Your task to perform on an android device: turn on location history Image 0: 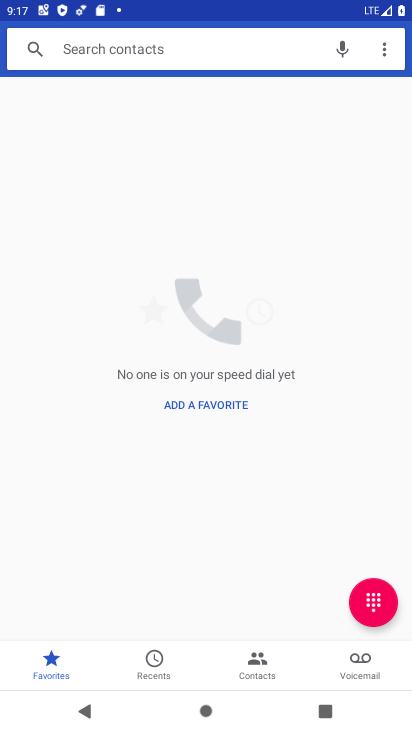
Step 0: press home button
Your task to perform on an android device: turn on location history Image 1: 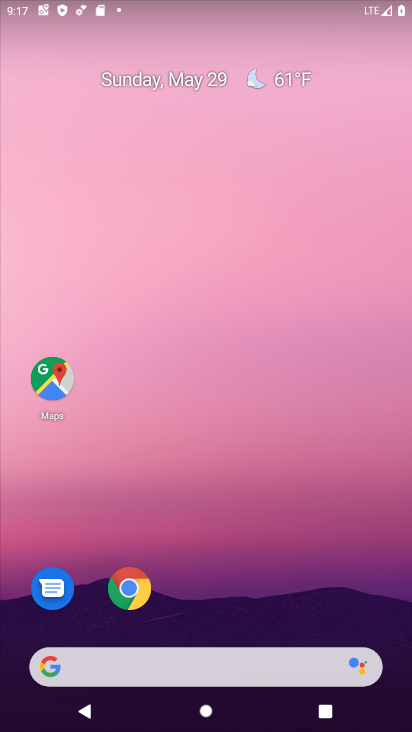
Step 1: drag from (310, 486) to (271, 85)
Your task to perform on an android device: turn on location history Image 2: 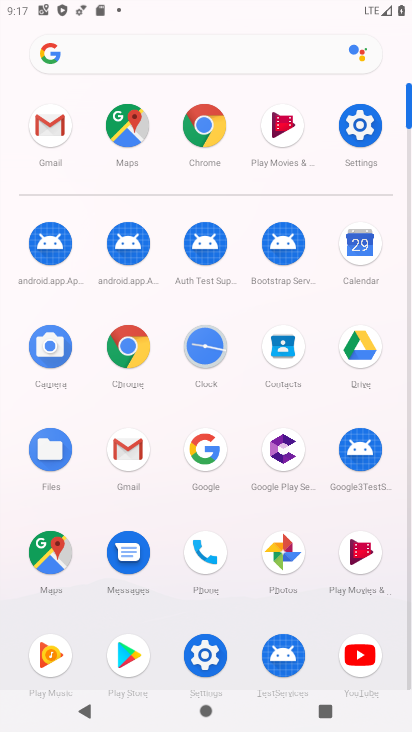
Step 2: click (364, 121)
Your task to perform on an android device: turn on location history Image 3: 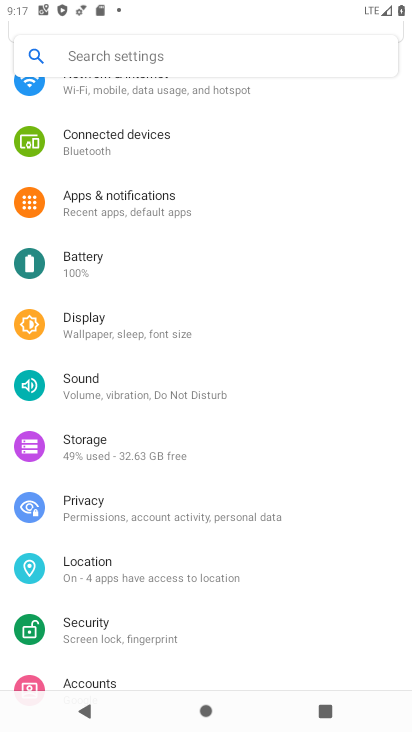
Step 3: click (78, 555)
Your task to perform on an android device: turn on location history Image 4: 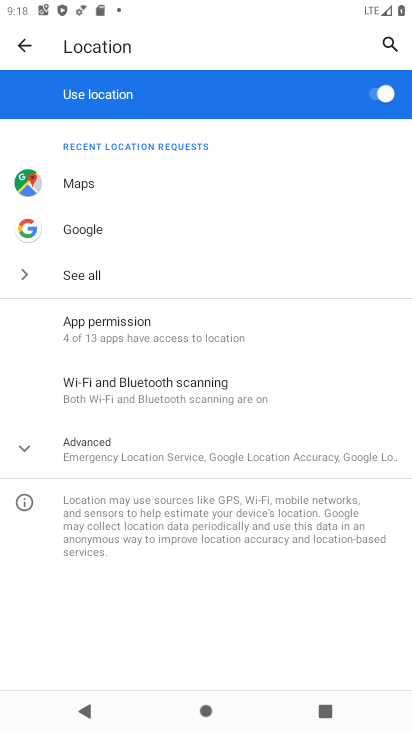
Step 4: click (103, 437)
Your task to perform on an android device: turn on location history Image 5: 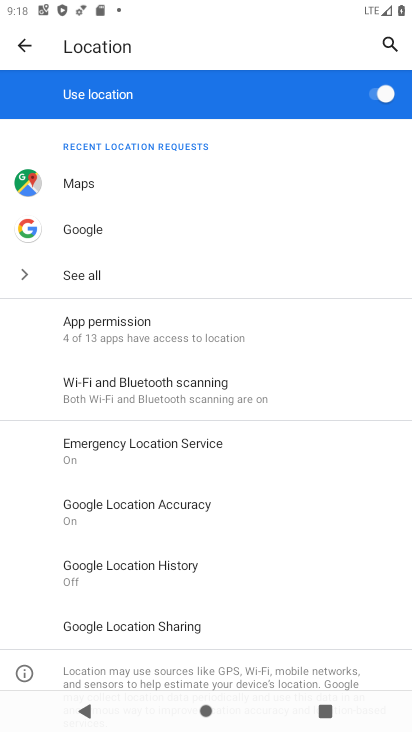
Step 5: click (180, 569)
Your task to perform on an android device: turn on location history Image 6: 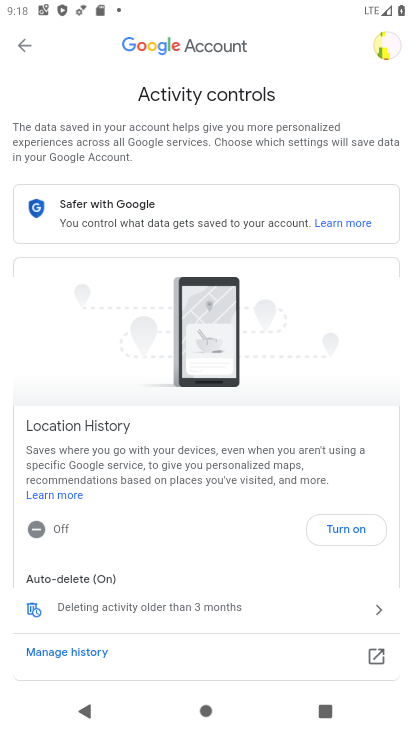
Step 6: click (337, 526)
Your task to perform on an android device: turn on location history Image 7: 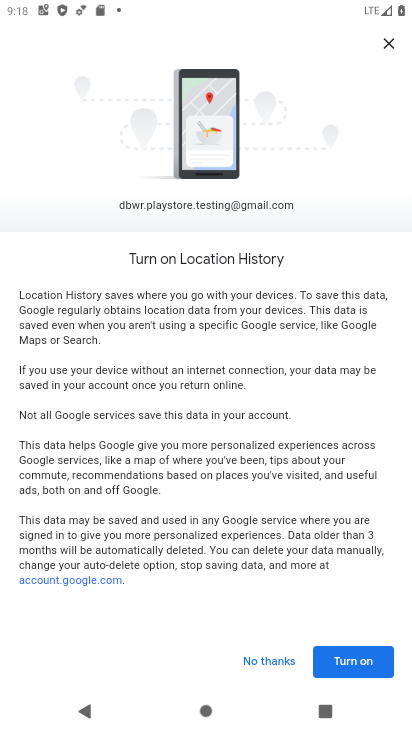
Step 7: click (351, 664)
Your task to perform on an android device: turn on location history Image 8: 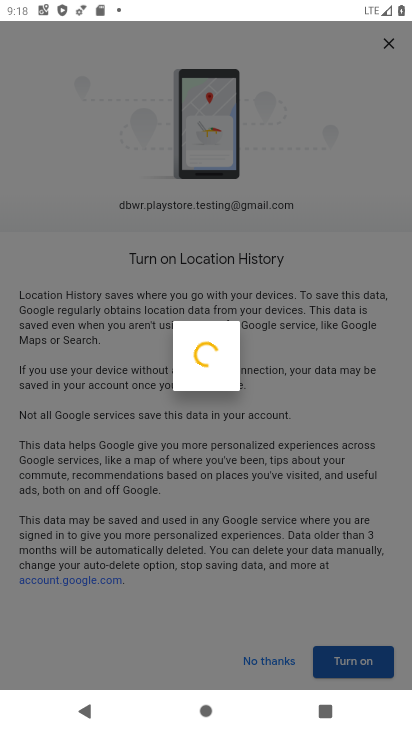
Step 8: click (345, 654)
Your task to perform on an android device: turn on location history Image 9: 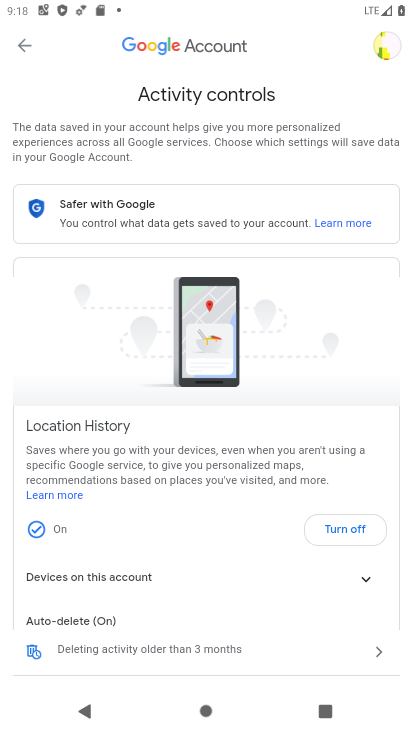
Step 9: task complete